Your task to perform on an android device: install app "Airtel Thanks" Image 0: 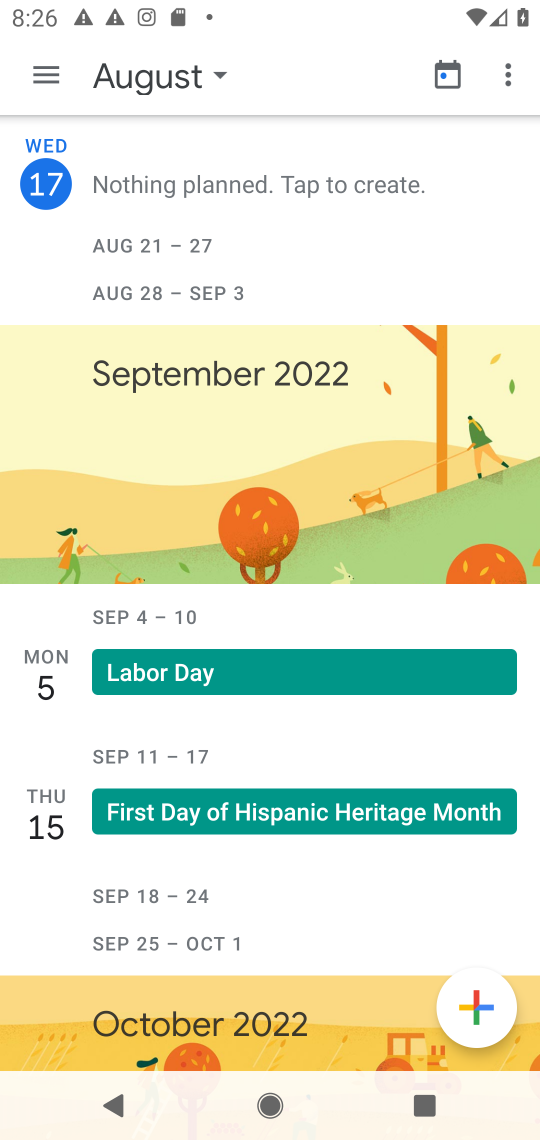
Step 0: press home button
Your task to perform on an android device: install app "Airtel Thanks" Image 1: 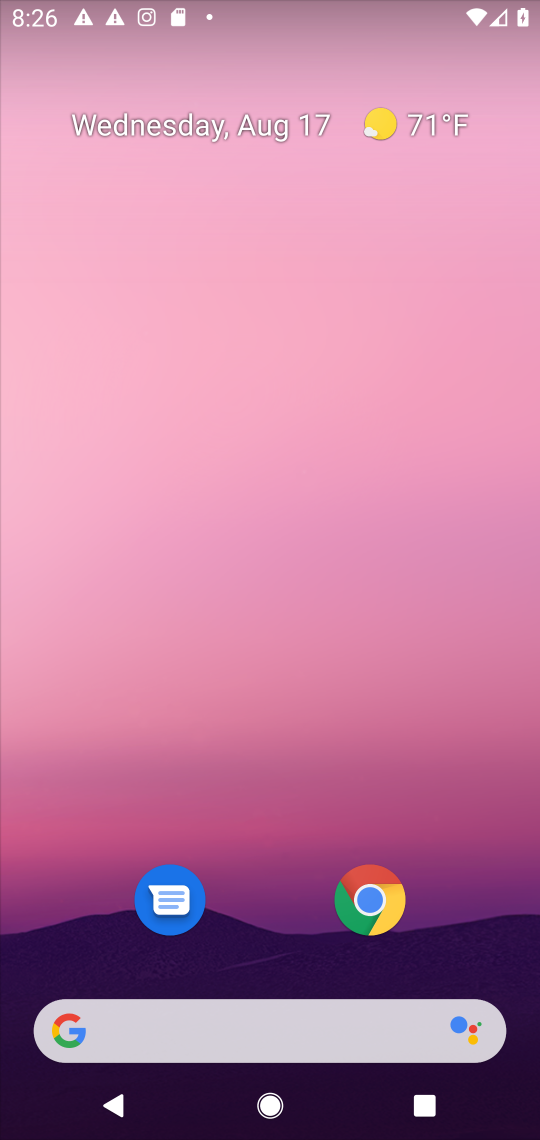
Step 1: drag from (415, 873) to (438, 0)
Your task to perform on an android device: install app "Airtel Thanks" Image 2: 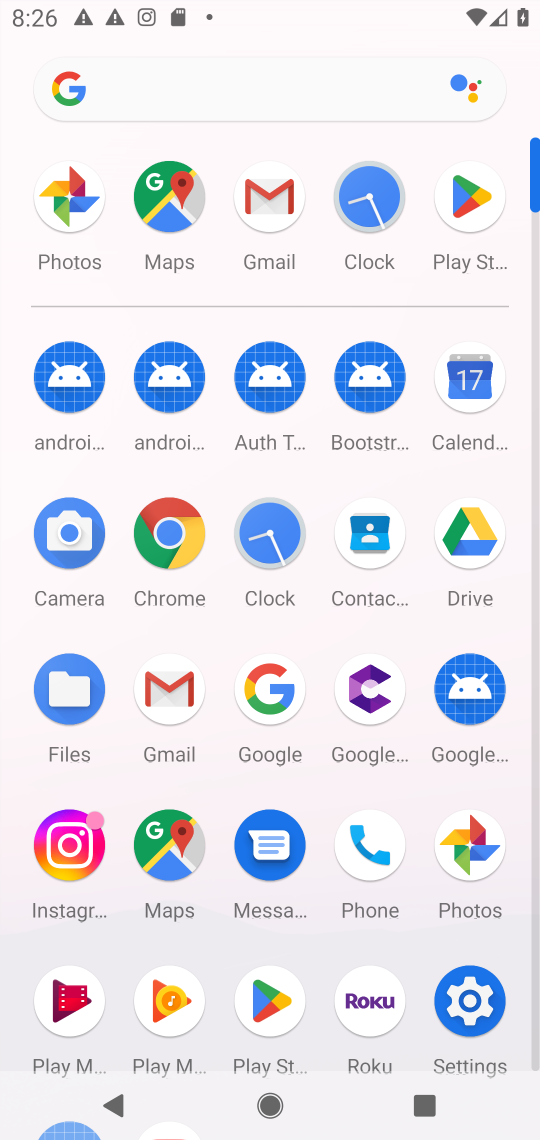
Step 2: click (472, 197)
Your task to perform on an android device: install app "Airtel Thanks" Image 3: 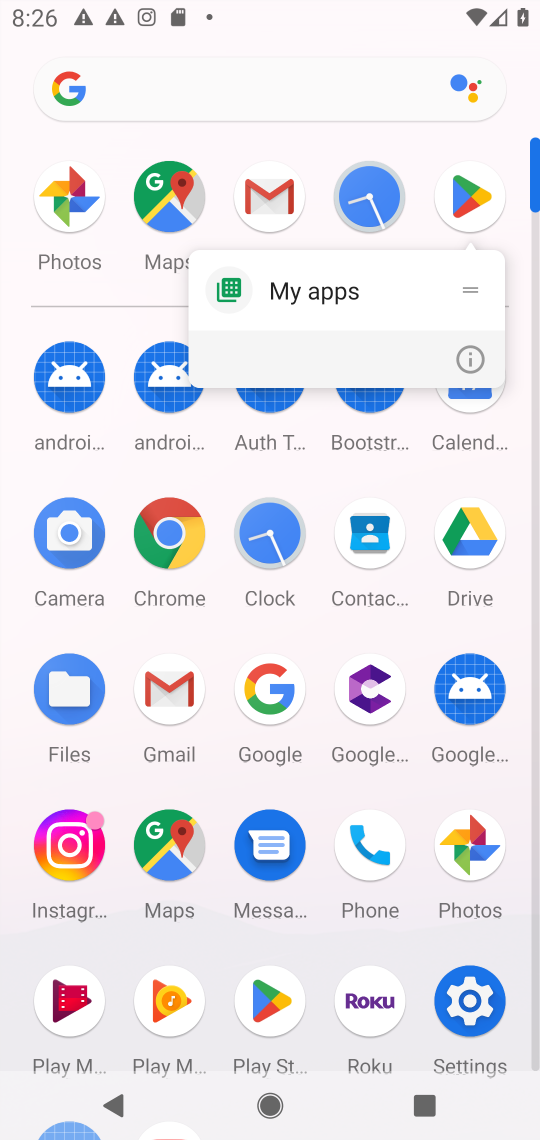
Step 3: click (456, 214)
Your task to perform on an android device: install app "Airtel Thanks" Image 4: 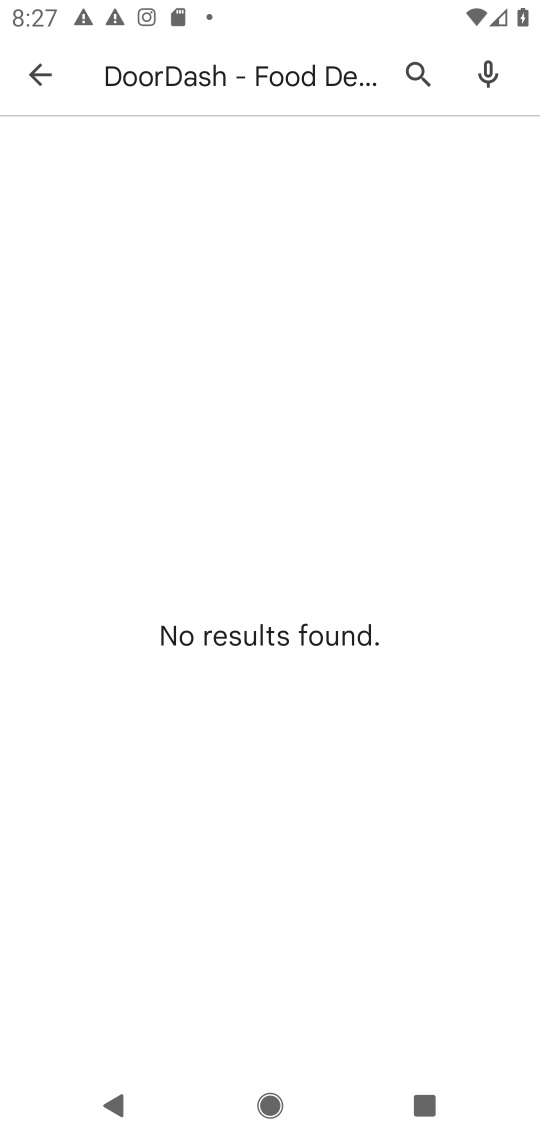
Step 4: click (25, 76)
Your task to perform on an android device: install app "Airtel Thanks" Image 5: 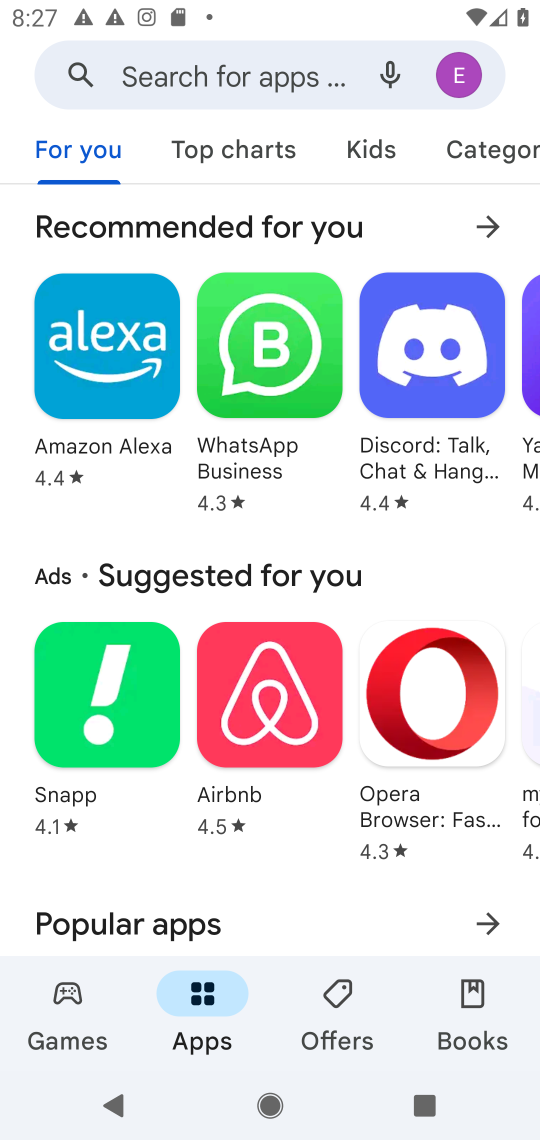
Step 5: click (131, 75)
Your task to perform on an android device: install app "Airtel Thanks" Image 6: 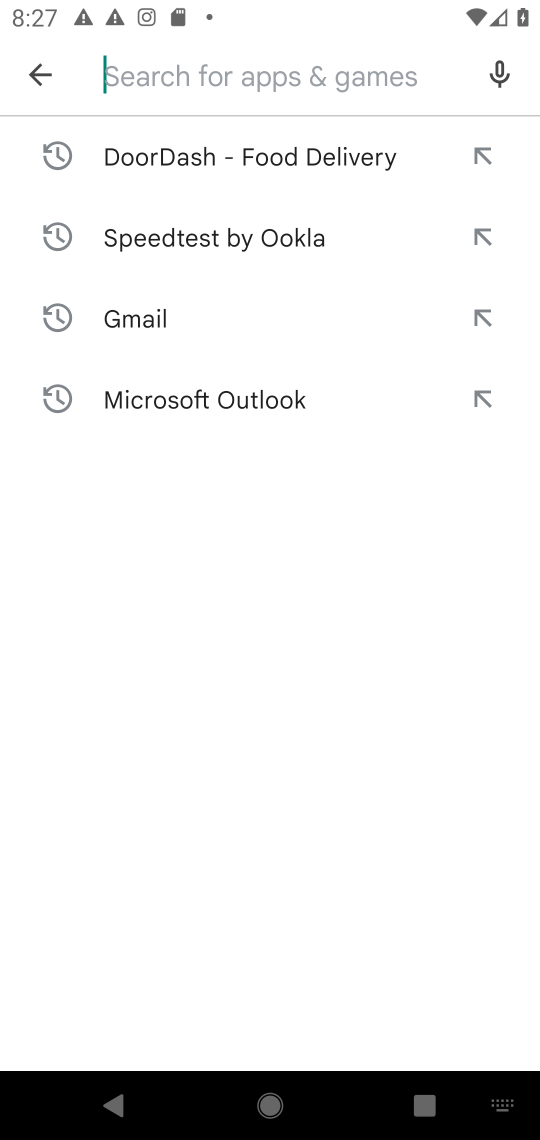
Step 6: type "Airtel Thanks"
Your task to perform on an android device: install app "Airtel Thanks" Image 7: 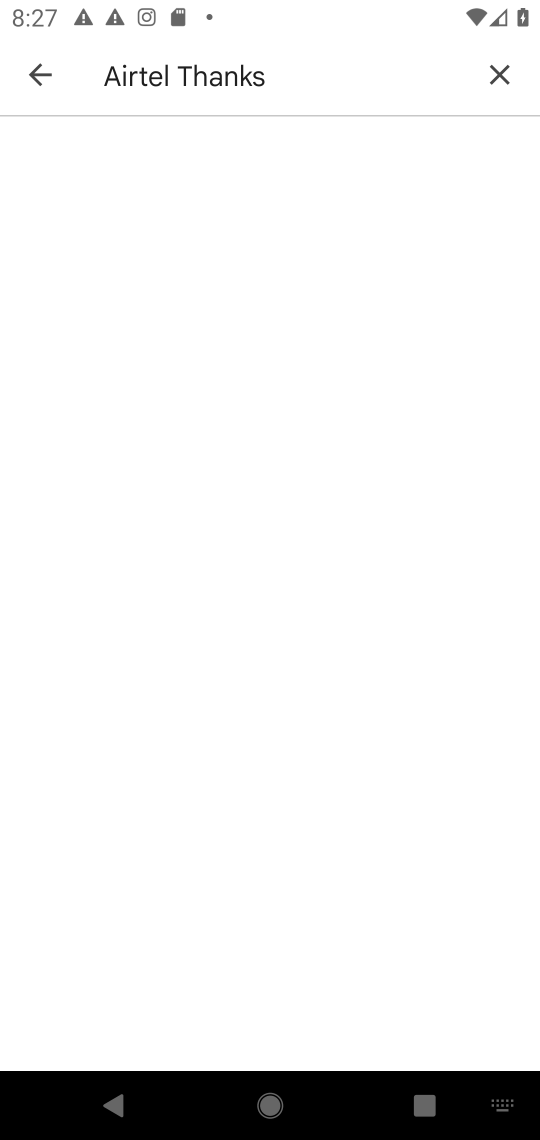
Step 7: press enter
Your task to perform on an android device: install app "Airtel Thanks" Image 8: 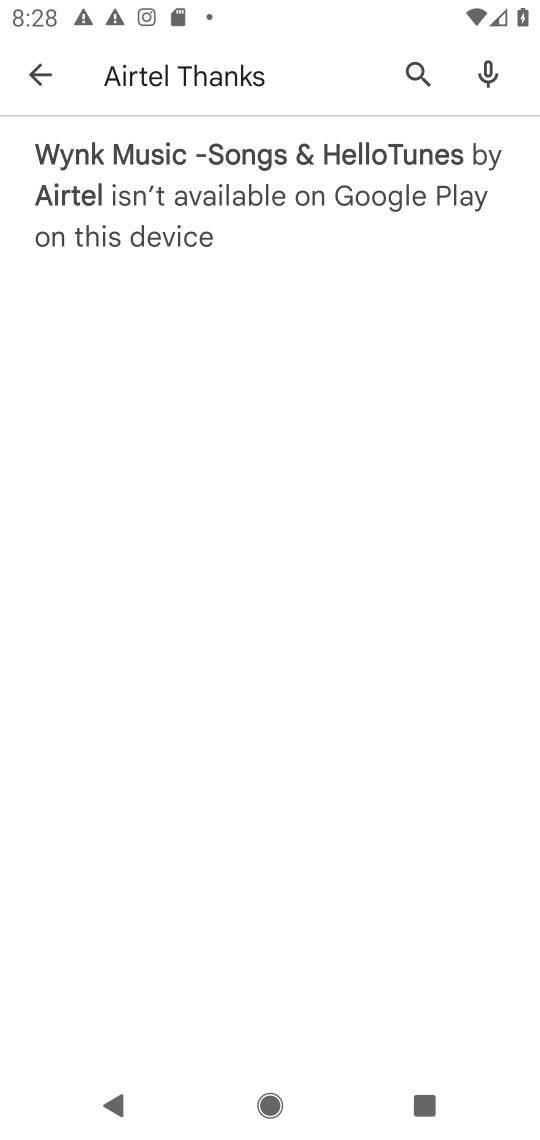
Step 8: task complete